Your task to perform on an android device: refresh tabs in the chrome app Image 0: 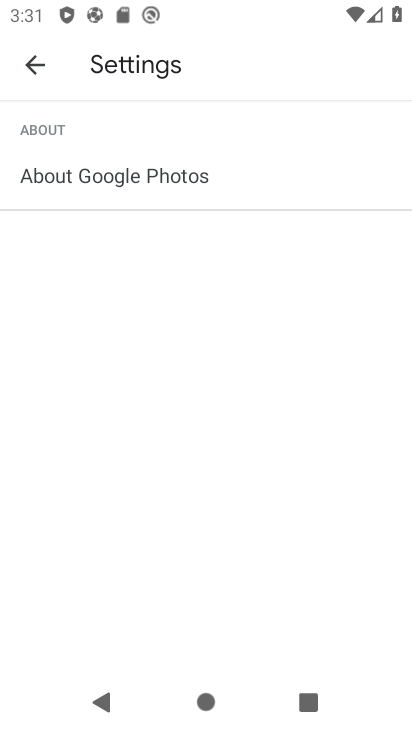
Step 0: press home button
Your task to perform on an android device: refresh tabs in the chrome app Image 1: 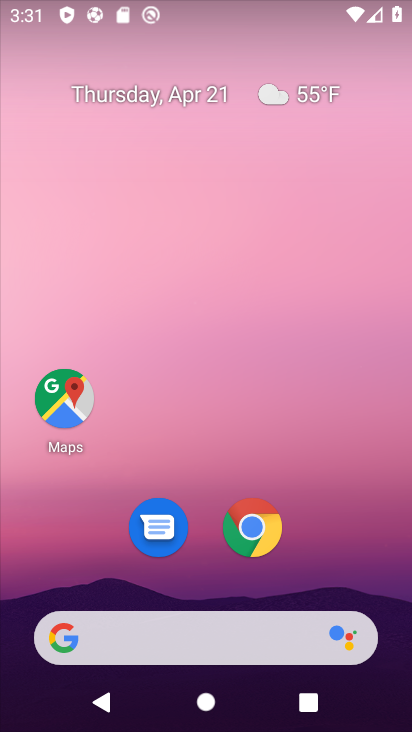
Step 1: click (247, 510)
Your task to perform on an android device: refresh tabs in the chrome app Image 2: 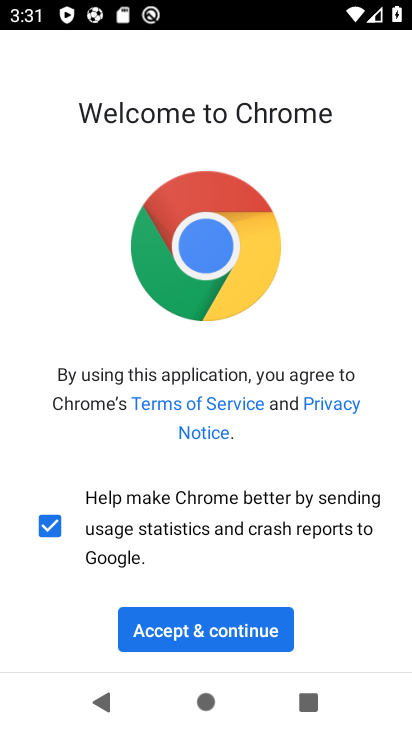
Step 2: click (192, 629)
Your task to perform on an android device: refresh tabs in the chrome app Image 3: 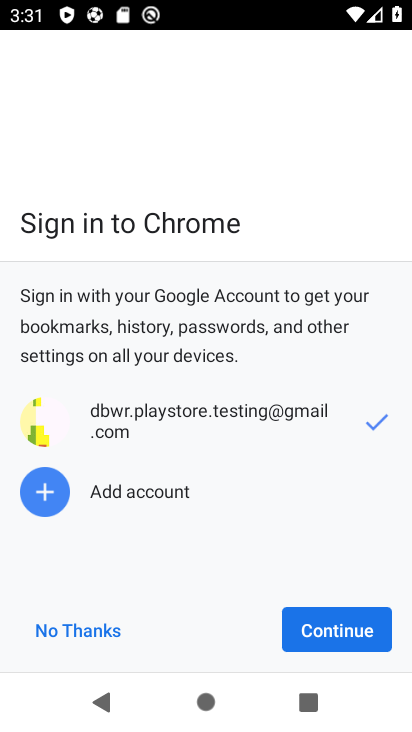
Step 3: click (306, 635)
Your task to perform on an android device: refresh tabs in the chrome app Image 4: 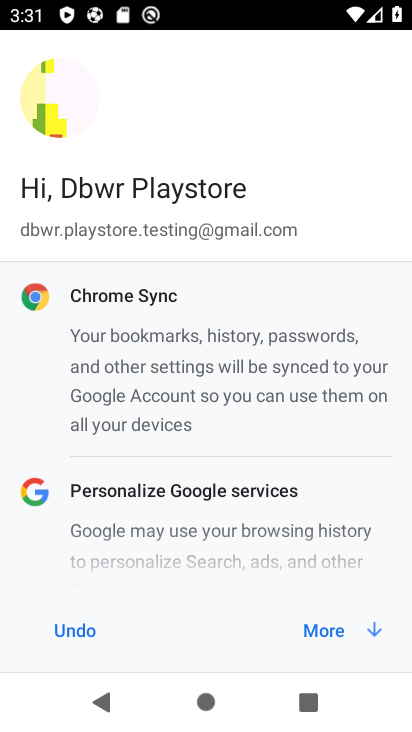
Step 4: click (317, 635)
Your task to perform on an android device: refresh tabs in the chrome app Image 5: 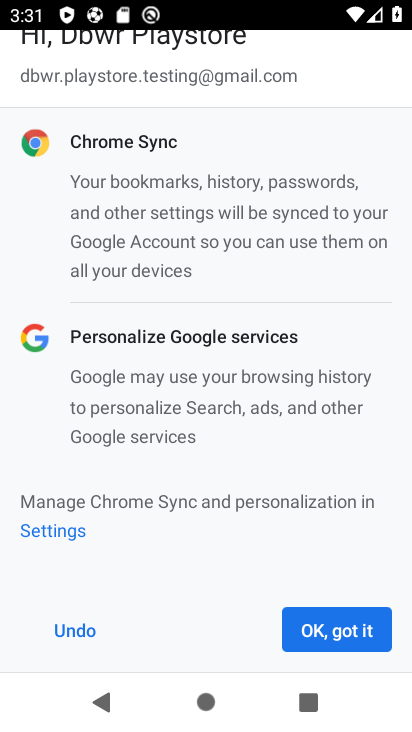
Step 5: click (318, 633)
Your task to perform on an android device: refresh tabs in the chrome app Image 6: 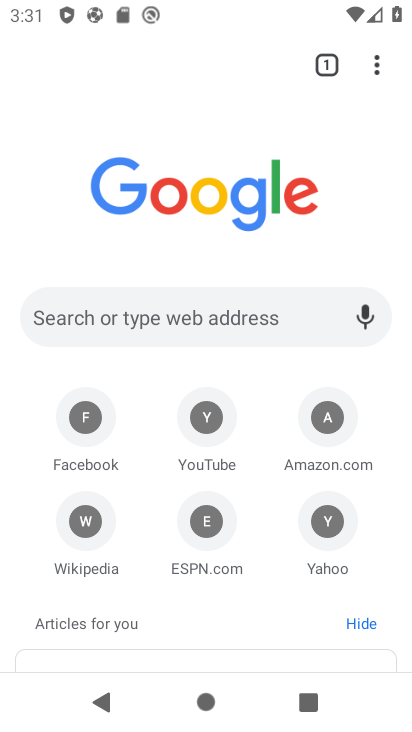
Step 6: click (378, 67)
Your task to perform on an android device: refresh tabs in the chrome app Image 7: 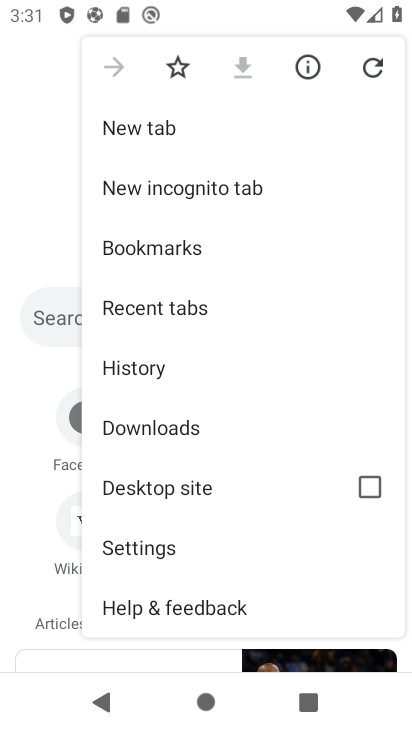
Step 7: click (368, 72)
Your task to perform on an android device: refresh tabs in the chrome app Image 8: 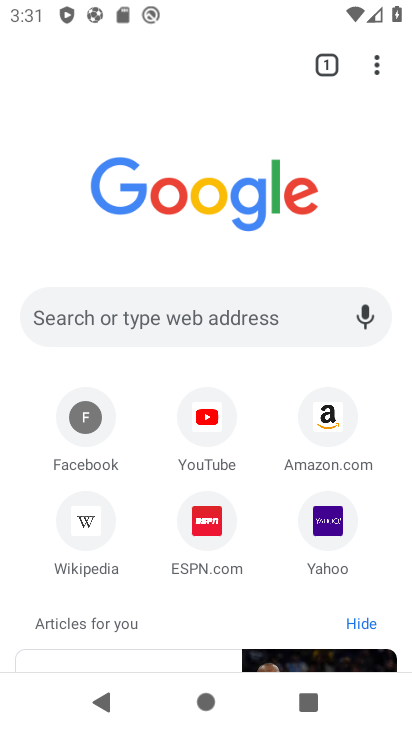
Step 8: task complete